Your task to perform on an android device: Do I have any events tomorrow? Image 0: 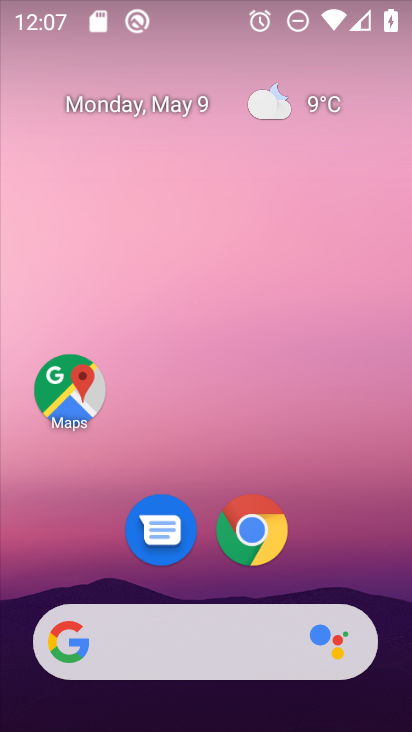
Step 0: click (151, 97)
Your task to perform on an android device: Do I have any events tomorrow? Image 1: 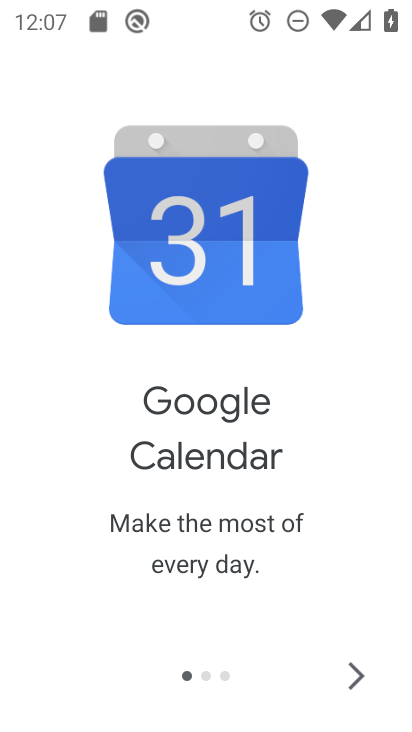
Step 1: click (381, 683)
Your task to perform on an android device: Do I have any events tomorrow? Image 2: 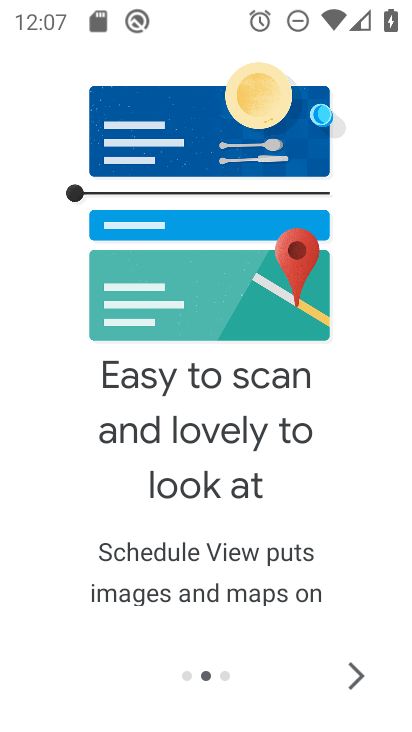
Step 2: click (381, 683)
Your task to perform on an android device: Do I have any events tomorrow? Image 3: 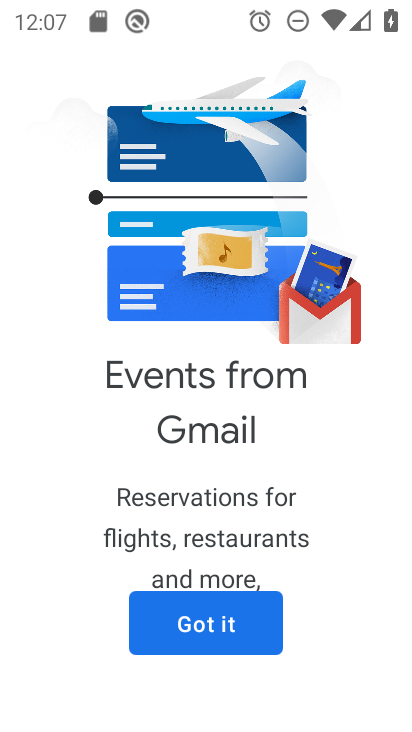
Step 3: click (381, 683)
Your task to perform on an android device: Do I have any events tomorrow? Image 4: 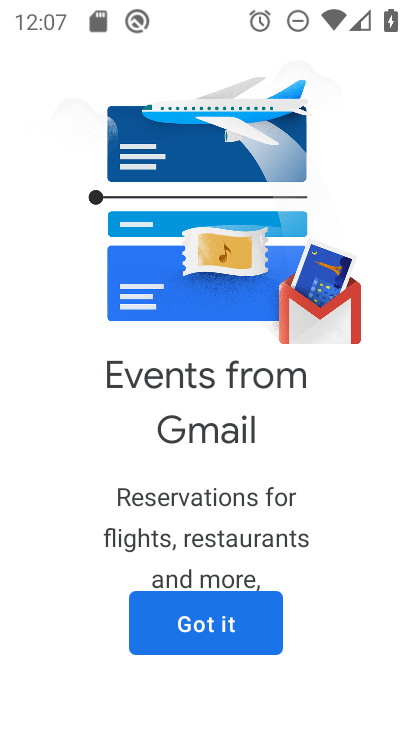
Step 4: click (246, 650)
Your task to perform on an android device: Do I have any events tomorrow? Image 5: 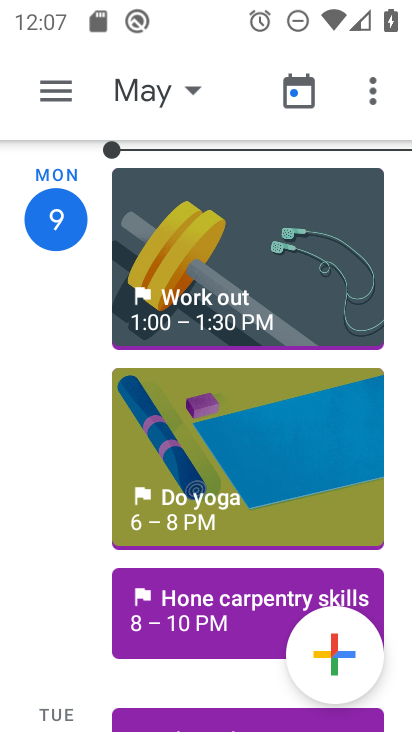
Step 5: click (160, 107)
Your task to perform on an android device: Do I have any events tomorrow? Image 6: 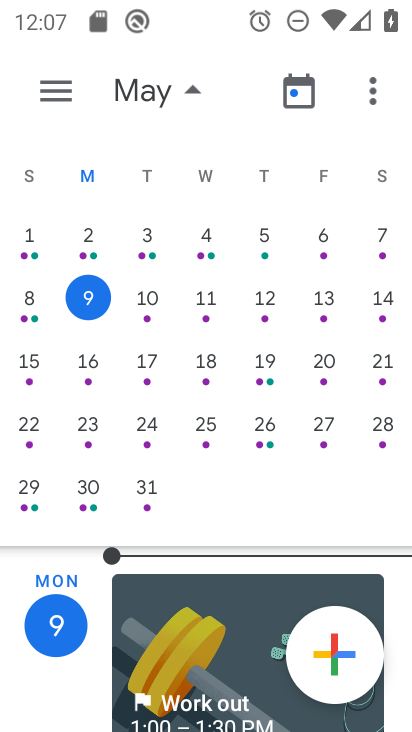
Step 6: click (150, 306)
Your task to perform on an android device: Do I have any events tomorrow? Image 7: 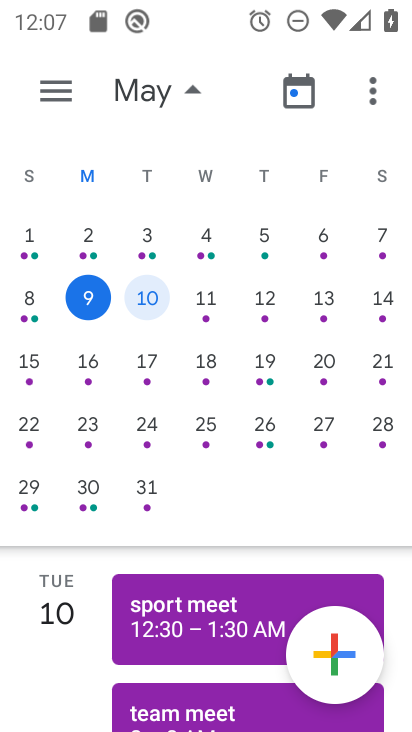
Step 7: task complete